Your task to perform on an android device: set the timer Image 0: 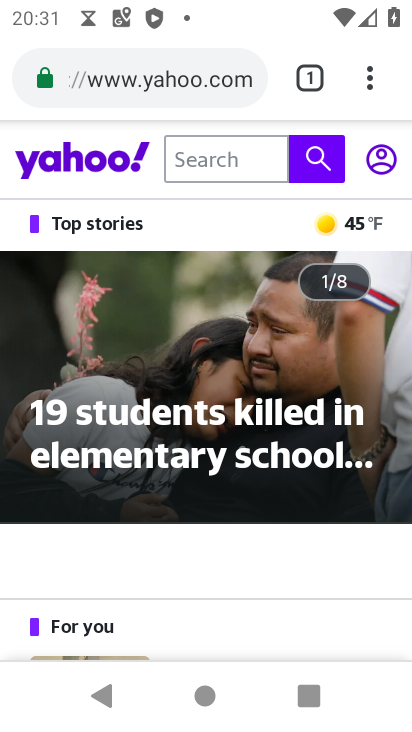
Step 0: press home button
Your task to perform on an android device: set the timer Image 1: 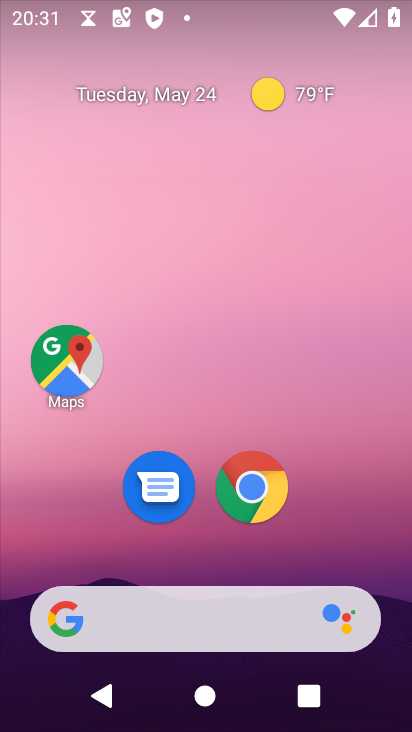
Step 1: drag from (12, 624) to (262, 143)
Your task to perform on an android device: set the timer Image 2: 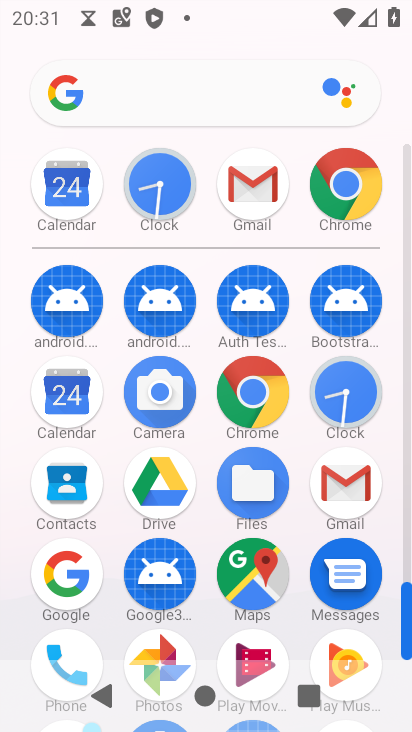
Step 2: click (358, 408)
Your task to perform on an android device: set the timer Image 3: 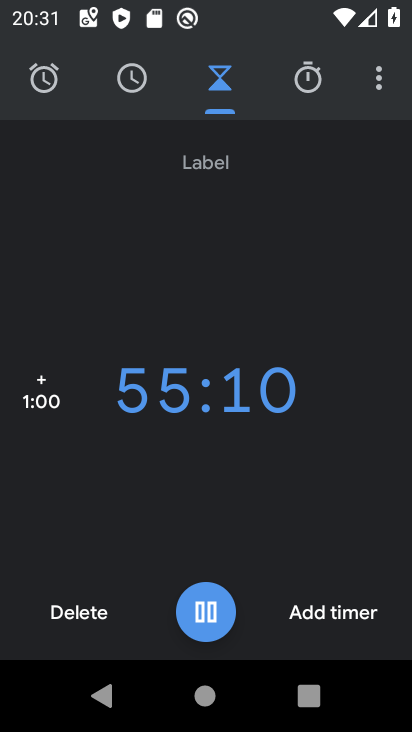
Step 3: click (333, 619)
Your task to perform on an android device: set the timer Image 4: 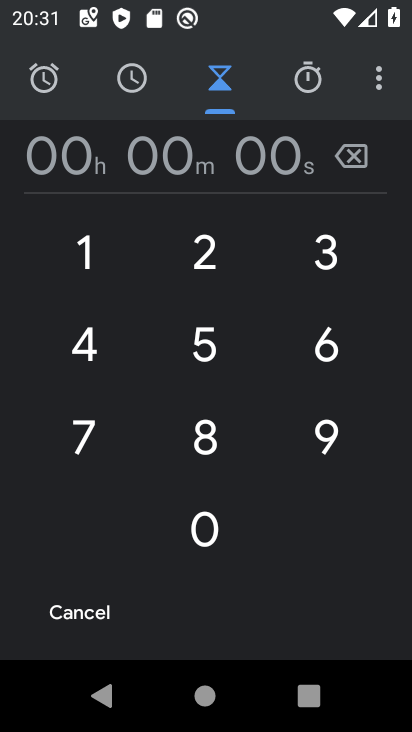
Step 4: click (88, 253)
Your task to perform on an android device: set the timer Image 5: 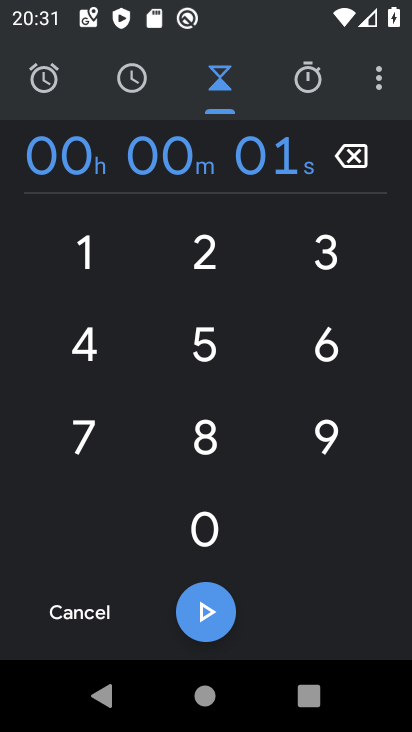
Step 5: click (217, 366)
Your task to perform on an android device: set the timer Image 6: 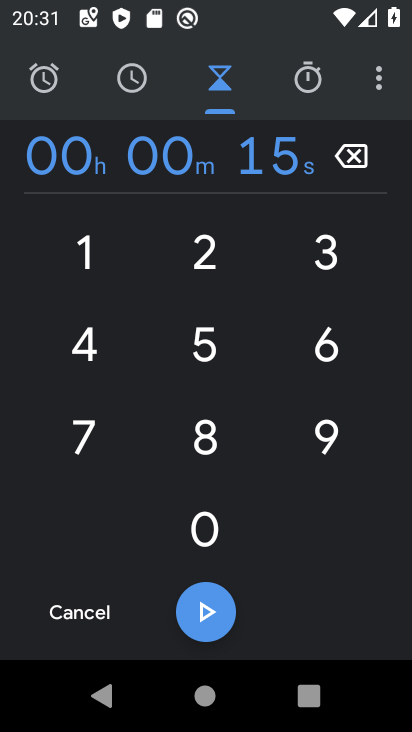
Step 6: click (207, 526)
Your task to perform on an android device: set the timer Image 7: 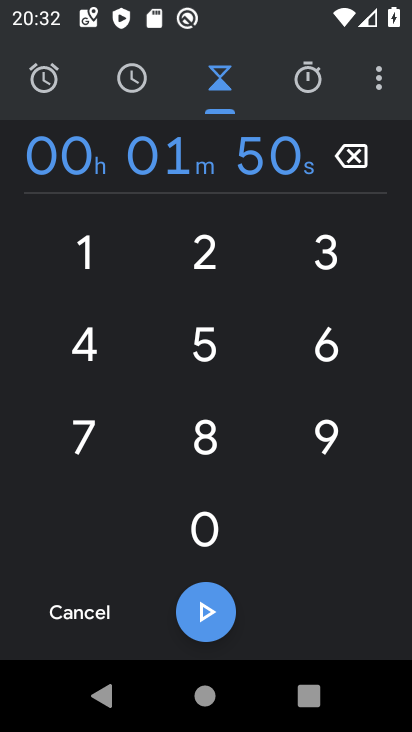
Step 7: click (207, 526)
Your task to perform on an android device: set the timer Image 8: 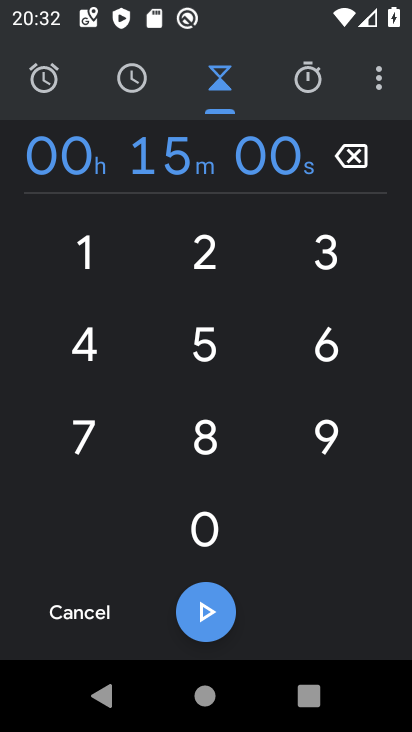
Step 8: click (207, 526)
Your task to perform on an android device: set the timer Image 9: 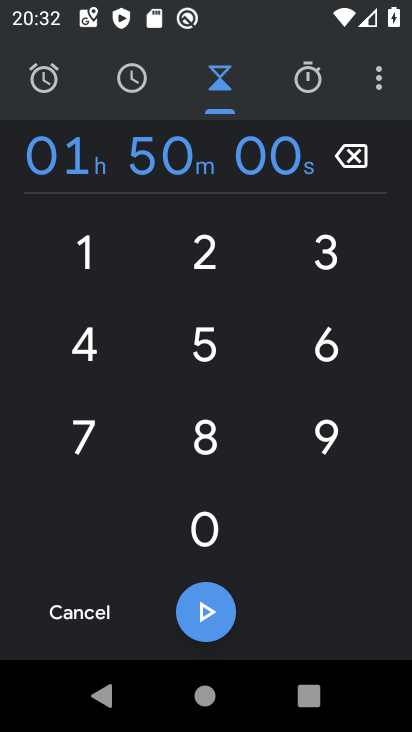
Step 9: click (207, 524)
Your task to perform on an android device: set the timer Image 10: 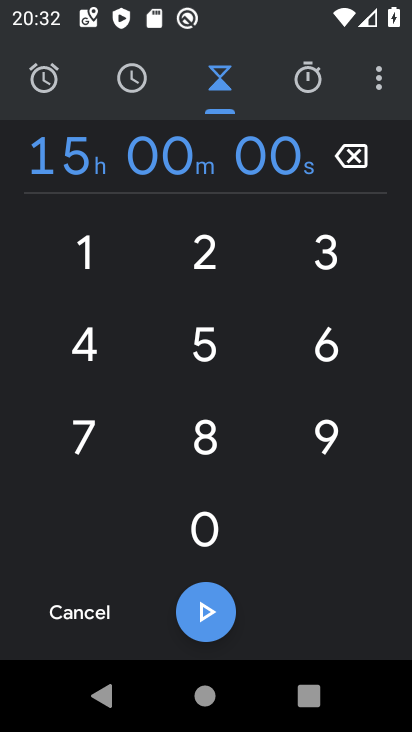
Step 10: click (235, 602)
Your task to perform on an android device: set the timer Image 11: 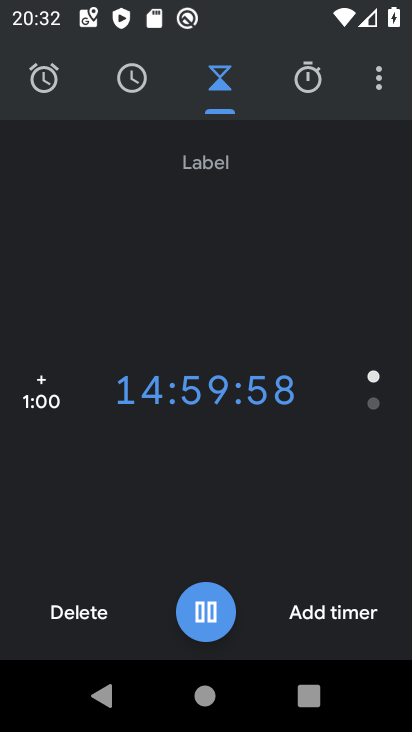
Step 11: task complete